Your task to perform on an android device: Show me popular games on the Play Store Image 0: 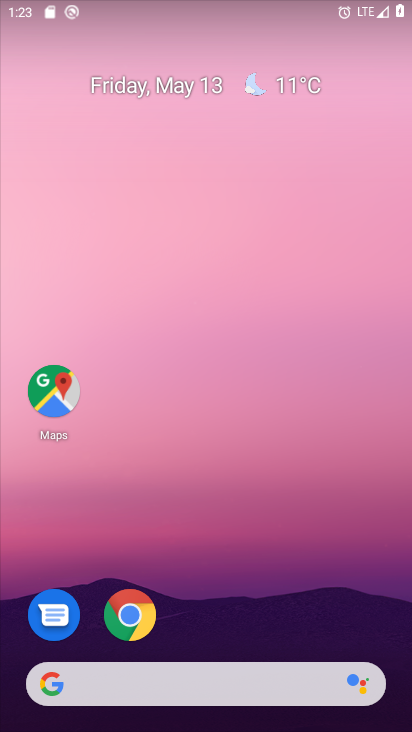
Step 0: drag from (290, 468) to (251, 78)
Your task to perform on an android device: Show me popular games on the Play Store Image 1: 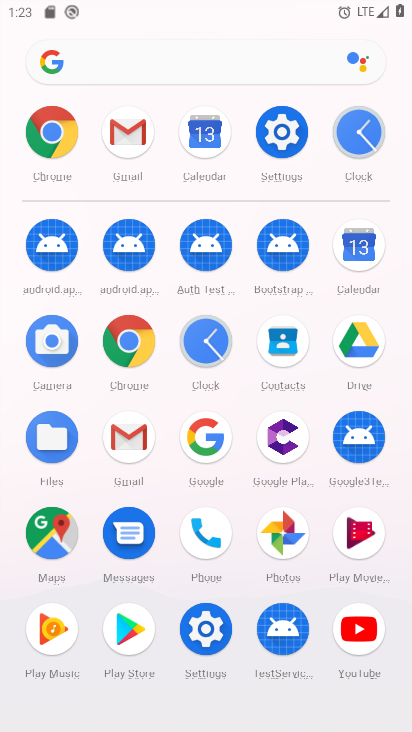
Step 1: click (116, 612)
Your task to perform on an android device: Show me popular games on the Play Store Image 2: 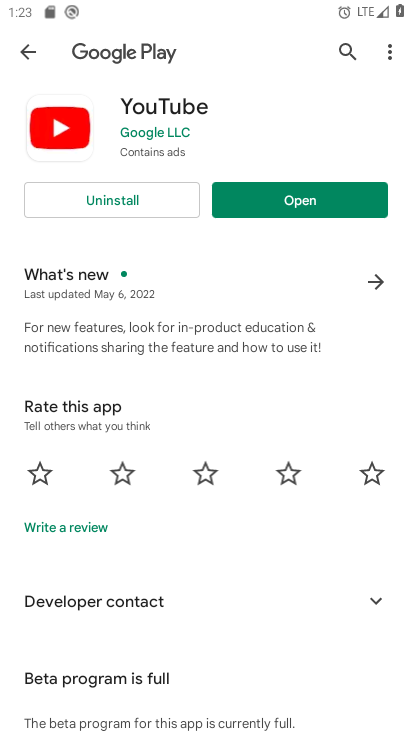
Step 2: click (28, 46)
Your task to perform on an android device: Show me popular games on the Play Store Image 3: 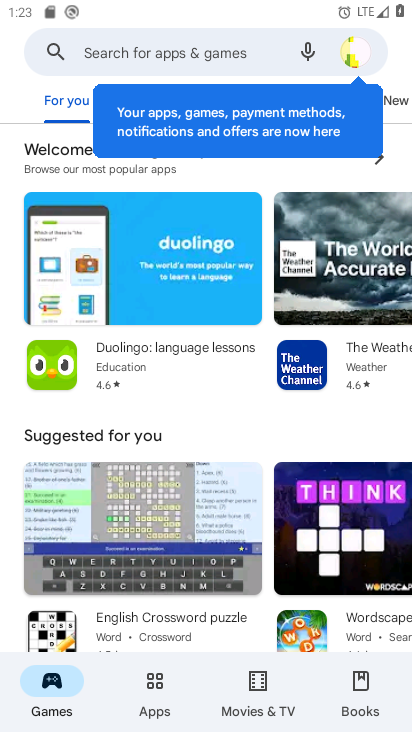
Step 3: drag from (229, 437) to (227, 127)
Your task to perform on an android device: Show me popular games on the Play Store Image 4: 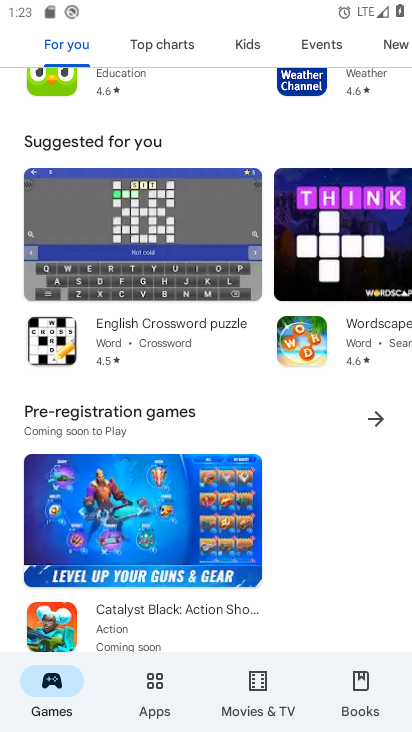
Step 4: drag from (184, 401) to (209, 111)
Your task to perform on an android device: Show me popular games on the Play Store Image 5: 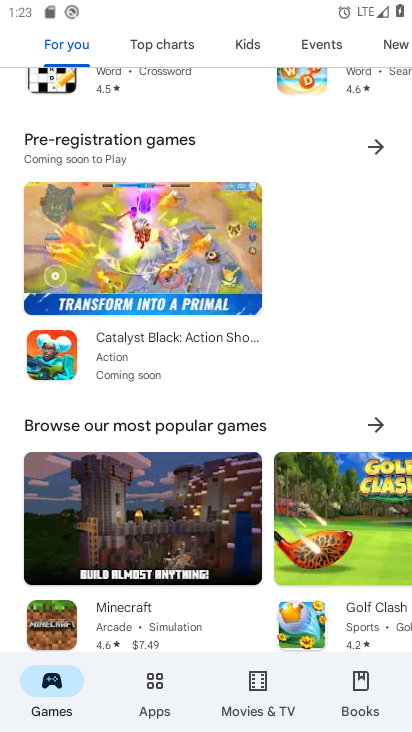
Step 5: click (371, 417)
Your task to perform on an android device: Show me popular games on the Play Store Image 6: 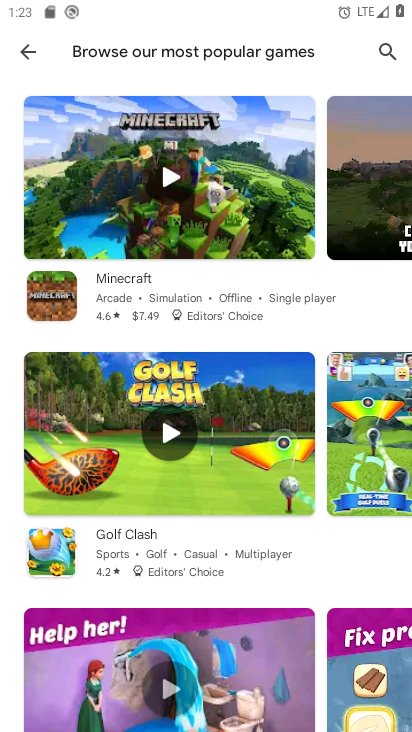
Step 6: task complete